Your task to perform on an android device: Open battery settings Image 0: 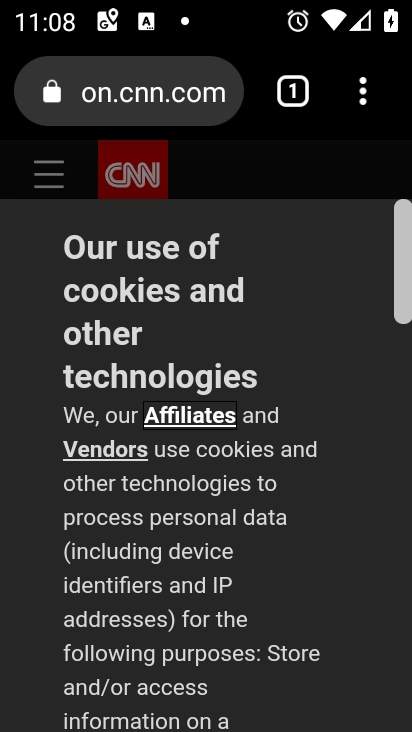
Step 0: press home button
Your task to perform on an android device: Open battery settings Image 1: 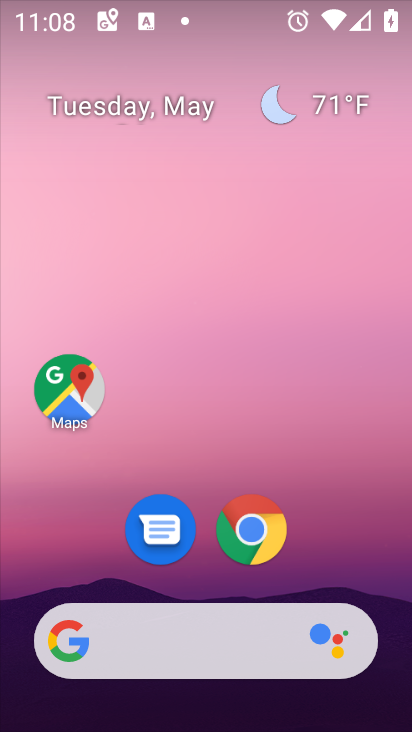
Step 1: drag from (234, 611) to (125, 68)
Your task to perform on an android device: Open battery settings Image 2: 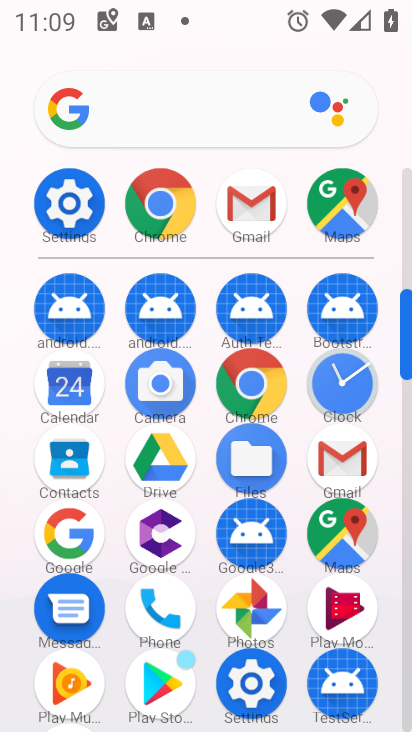
Step 2: click (59, 202)
Your task to perform on an android device: Open battery settings Image 3: 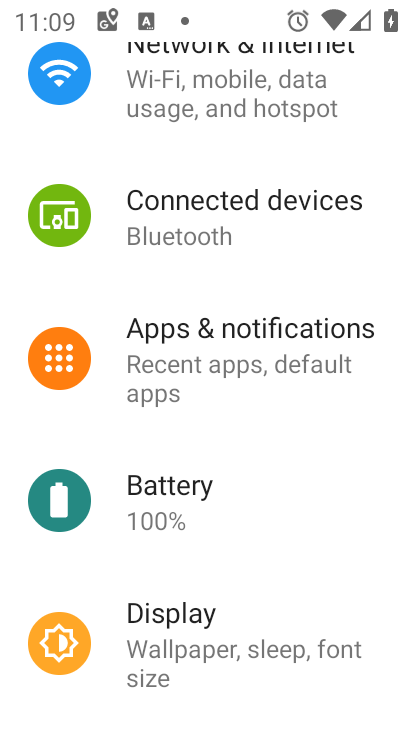
Step 3: click (183, 480)
Your task to perform on an android device: Open battery settings Image 4: 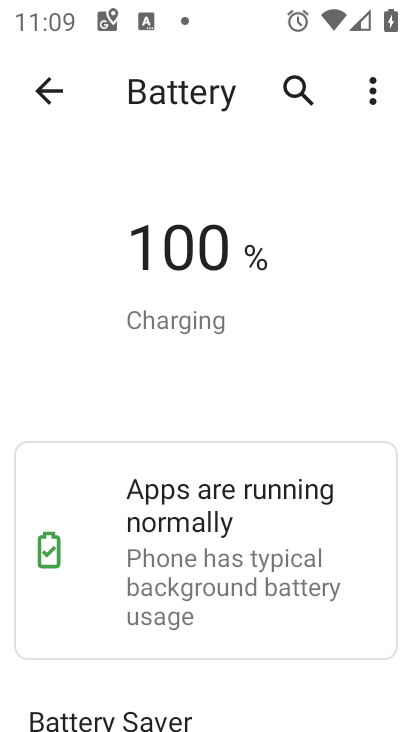
Step 4: task complete